Your task to perform on an android device: turn pop-ups on in chrome Image 0: 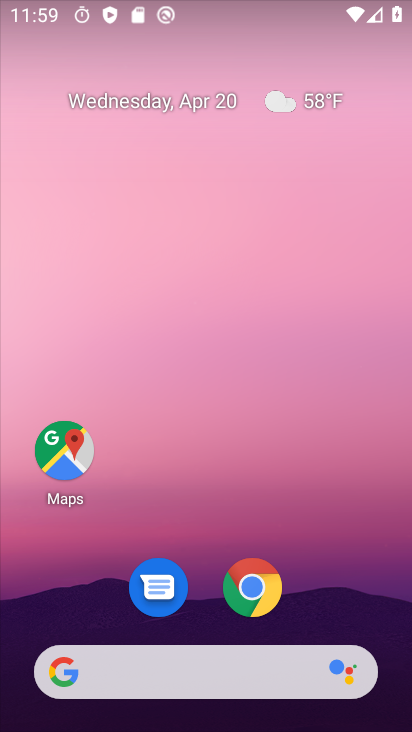
Step 0: click (265, 588)
Your task to perform on an android device: turn pop-ups on in chrome Image 1: 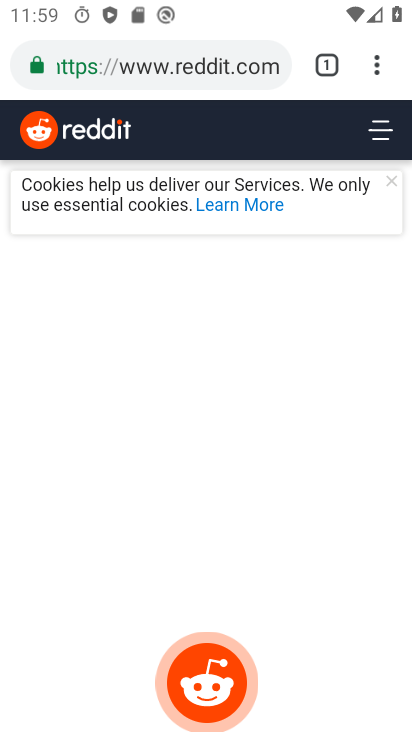
Step 1: click (384, 67)
Your task to perform on an android device: turn pop-ups on in chrome Image 2: 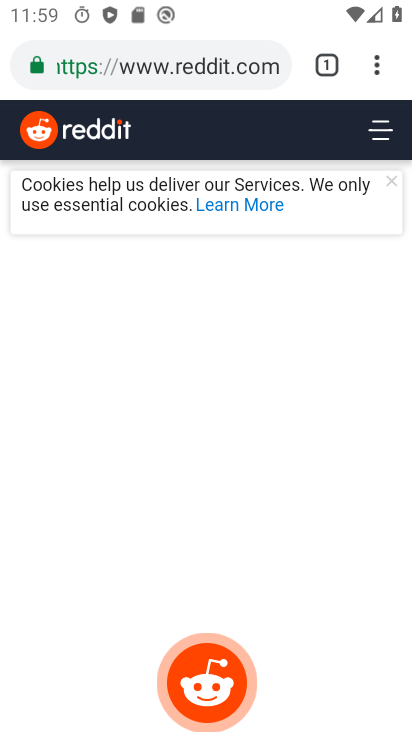
Step 2: click (374, 83)
Your task to perform on an android device: turn pop-ups on in chrome Image 3: 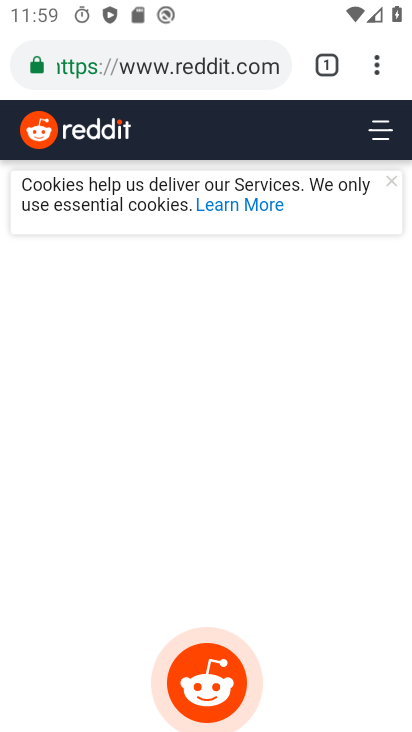
Step 3: click (376, 73)
Your task to perform on an android device: turn pop-ups on in chrome Image 4: 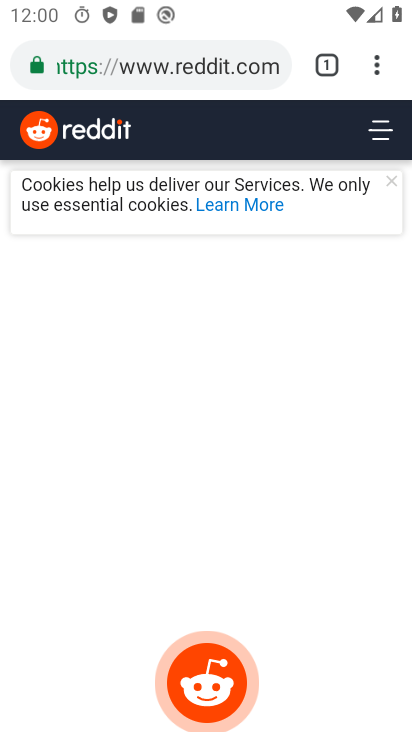
Step 4: click (376, 79)
Your task to perform on an android device: turn pop-ups on in chrome Image 5: 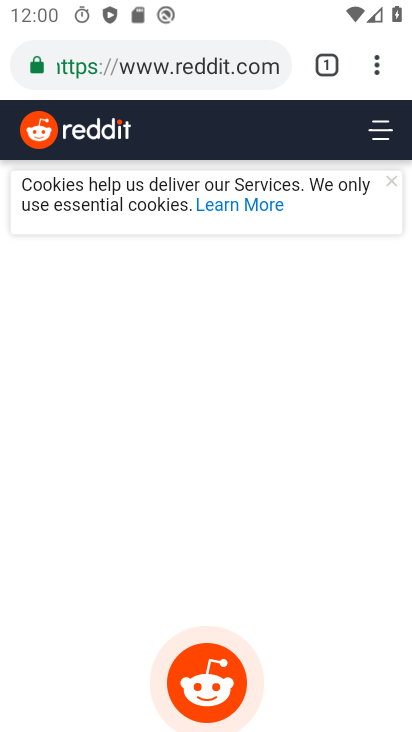
Step 5: click (382, 78)
Your task to perform on an android device: turn pop-ups on in chrome Image 6: 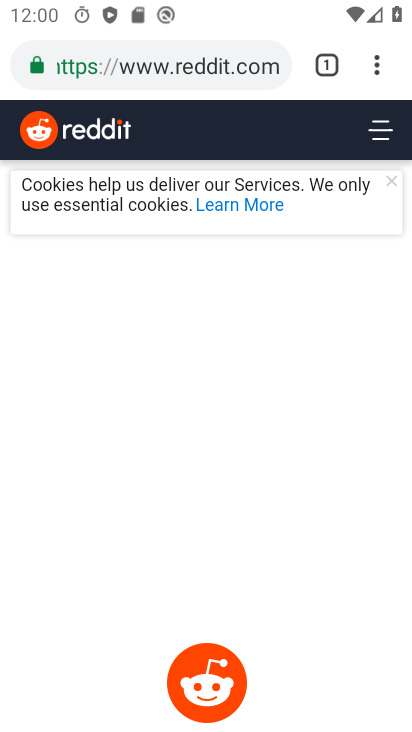
Step 6: click (371, 53)
Your task to perform on an android device: turn pop-ups on in chrome Image 7: 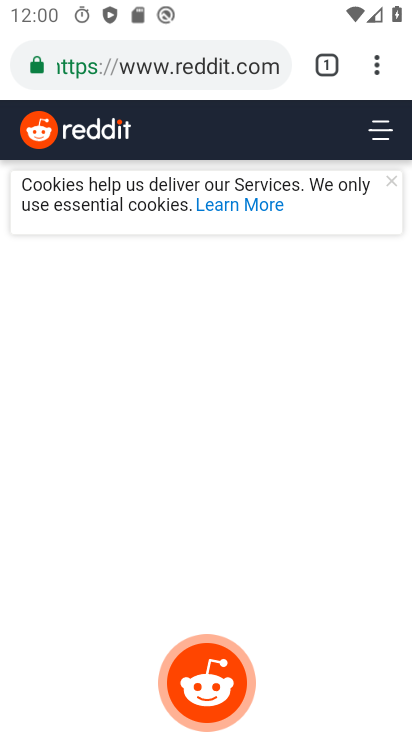
Step 7: click (381, 82)
Your task to perform on an android device: turn pop-ups on in chrome Image 8: 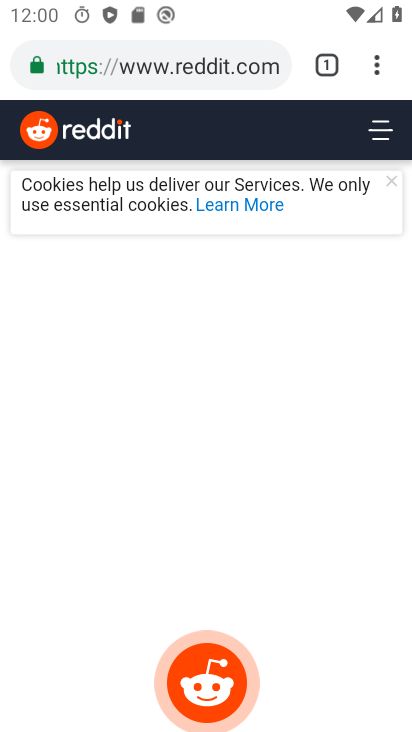
Step 8: click (392, 82)
Your task to perform on an android device: turn pop-ups on in chrome Image 9: 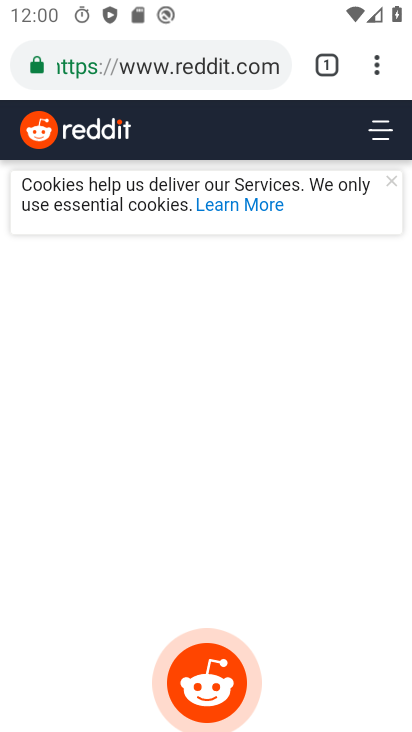
Step 9: click (379, 85)
Your task to perform on an android device: turn pop-ups on in chrome Image 10: 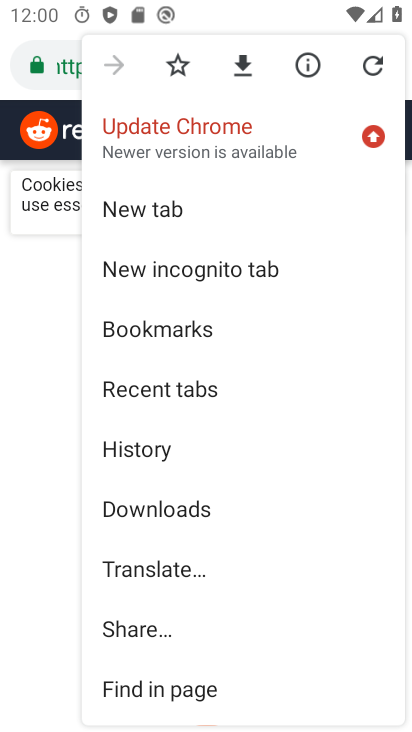
Step 10: drag from (175, 523) to (229, 70)
Your task to perform on an android device: turn pop-ups on in chrome Image 11: 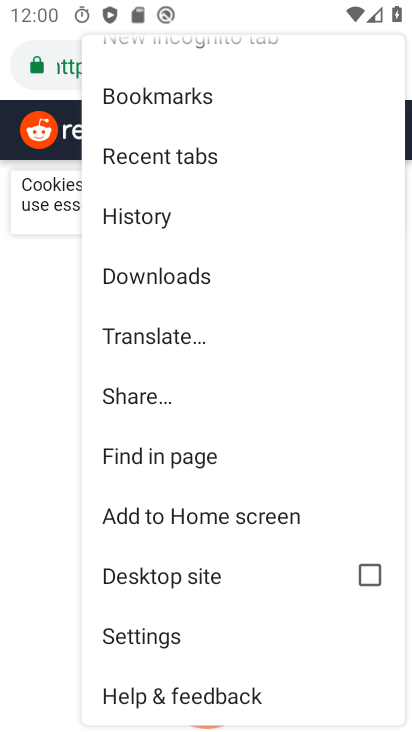
Step 11: click (145, 636)
Your task to perform on an android device: turn pop-ups on in chrome Image 12: 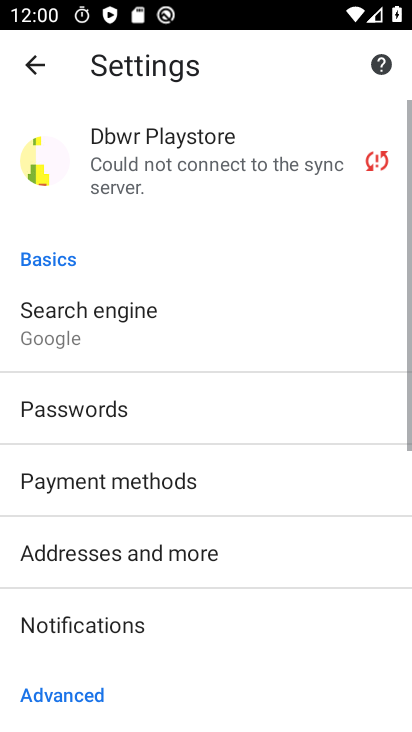
Step 12: drag from (110, 584) to (171, 214)
Your task to perform on an android device: turn pop-ups on in chrome Image 13: 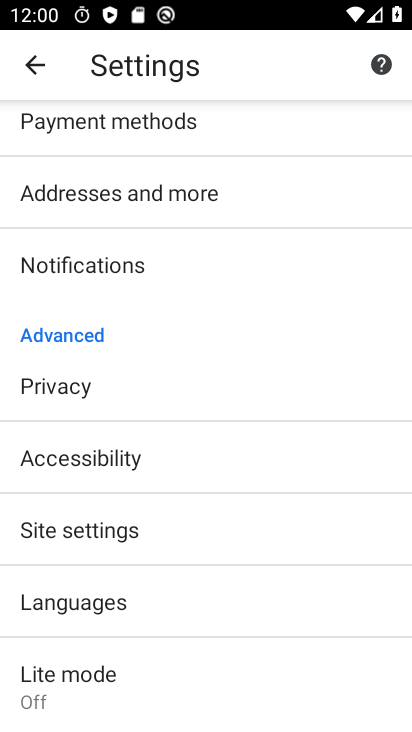
Step 13: click (102, 535)
Your task to perform on an android device: turn pop-ups on in chrome Image 14: 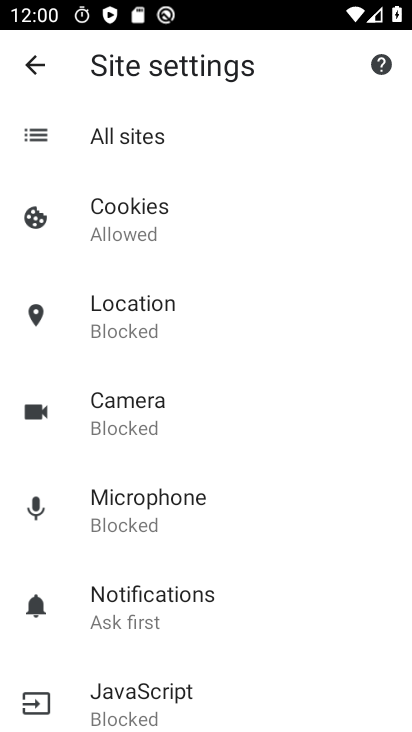
Step 14: drag from (109, 599) to (179, 192)
Your task to perform on an android device: turn pop-ups on in chrome Image 15: 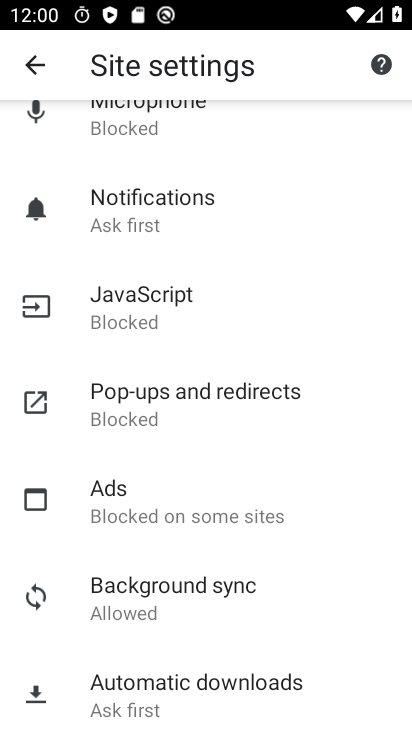
Step 15: click (144, 424)
Your task to perform on an android device: turn pop-ups on in chrome Image 16: 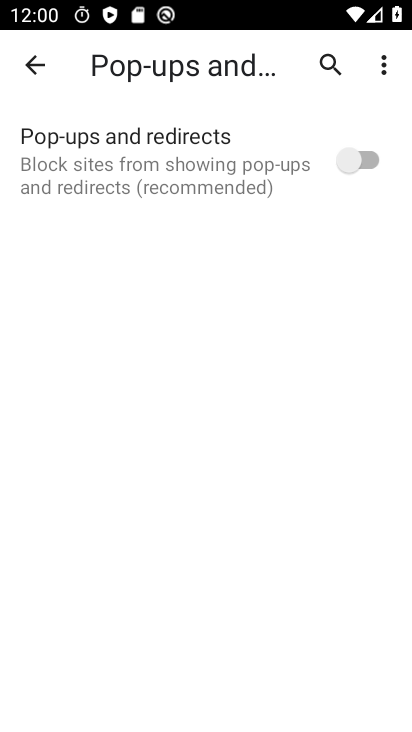
Step 16: click (369, 163)
Your task to perform on an android device: turn pop-ups on in chrome Image 17: 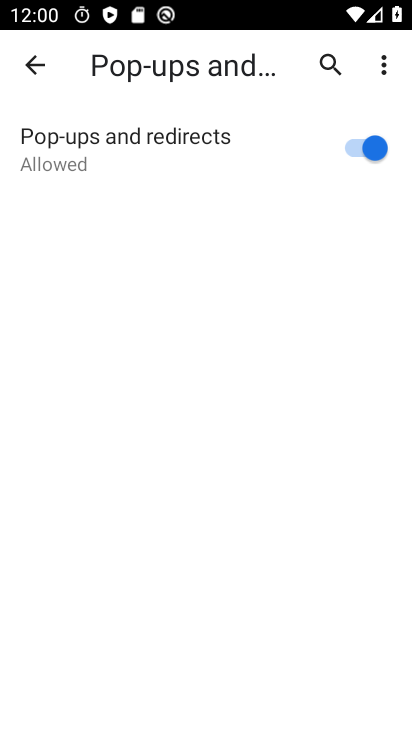
Step 17: task complete